Your task to perform on an android device: open the mobile data screen to see how much data has been used Image 0: 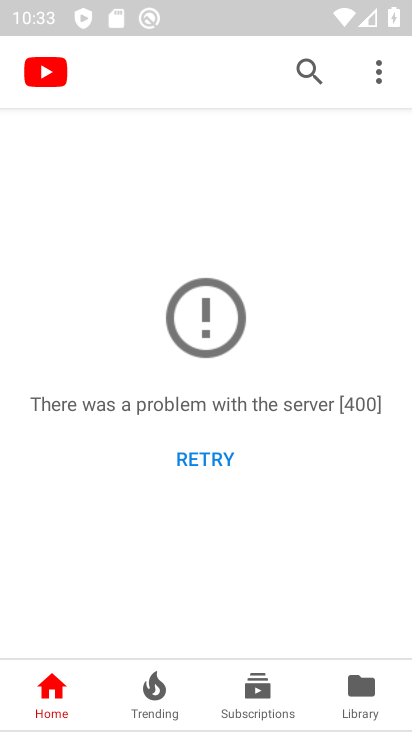
Step 0: press home button
Your task to perform on an android device: open the mobile data screen to see how much data has been used Image 1: 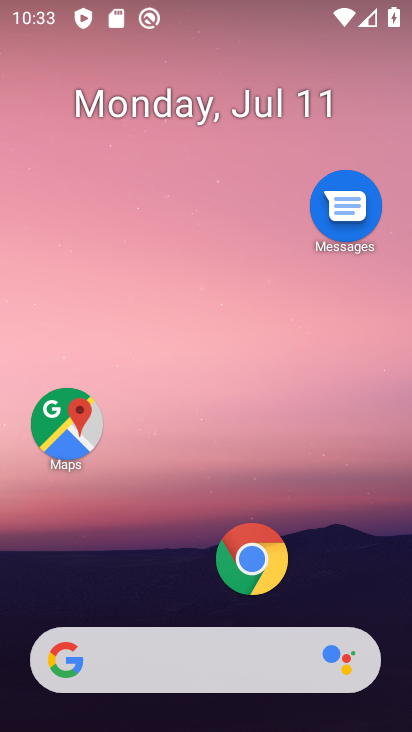
Step 1: drag from (325, 585) to (322, 101)
Your task to perform on an android device: open the mobile data screen to see how much data has been used Image 2: 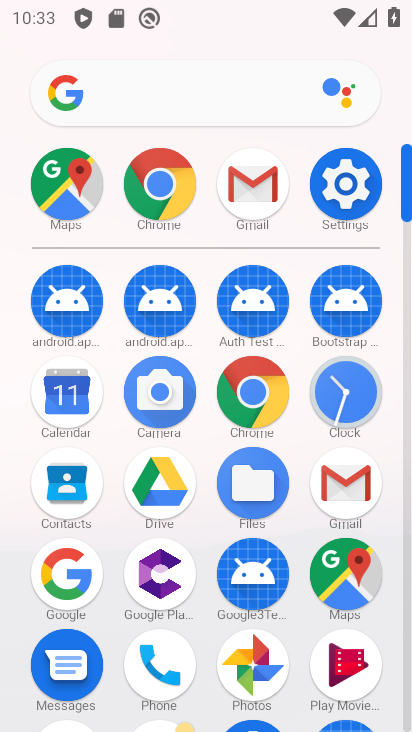
Step 2: click (344, 191)
Your task to perform on an android device: open the mobile data screen to see how much data has been used Image 3: 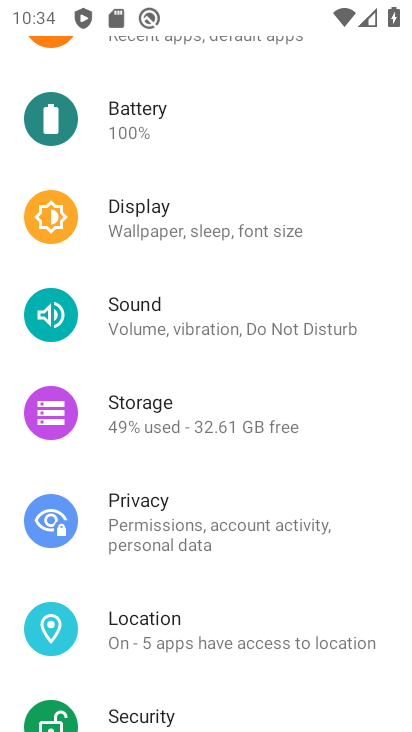
Step 3: drag from (340, 206) to (359, 315)
Your task to perform on an android device: open the mobile data screen to see how much data has been used Image 4: 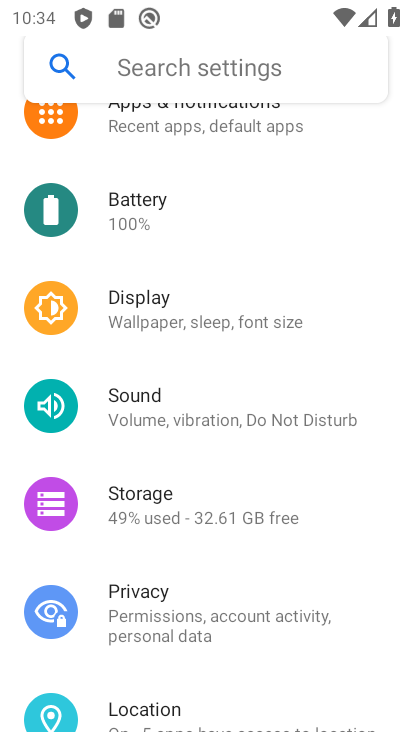
Step 4: drag from (345, 234) to (349, 349)
Your task to perform on an android device: open the mobile data screen to see how much data has been used Image 5: 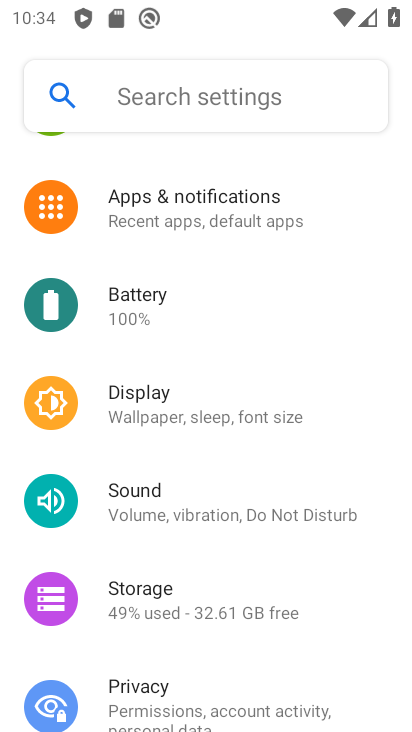
Step 5: drag from (347, 220) to (353, 289)
Your task to perform on an android device: open the mobile data screen to see how much data has been used Image 6: 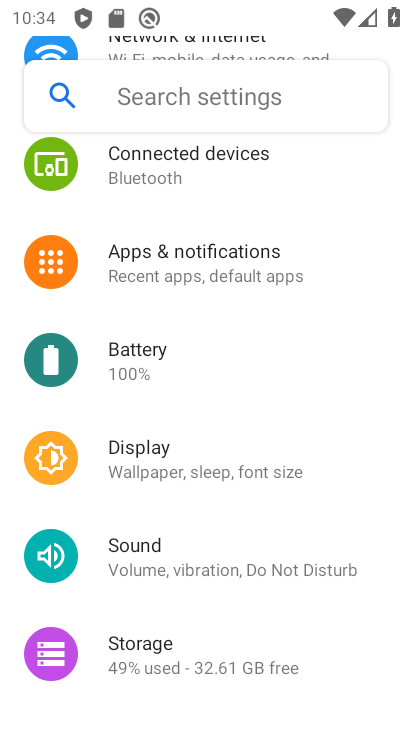
Step 6: drag from (362, 211) to (363, 363)
Your task to perform on an android device: open the mobile data screen to see how much data has been used Image 7: 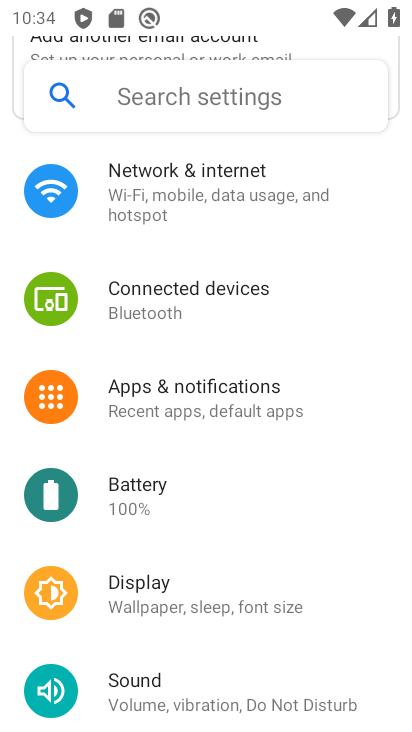
Step 7: click (314, 198)
Your task to perform on an android device: open the mobile data screen to see how much data has been used Image 8: 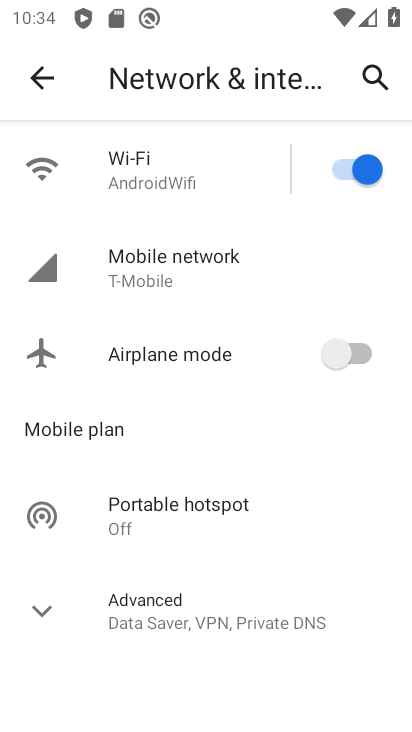
Step 8: click (205, 268)
Your task to perform on an android device: open the mobile data screen to see how much data has been used Image 9: 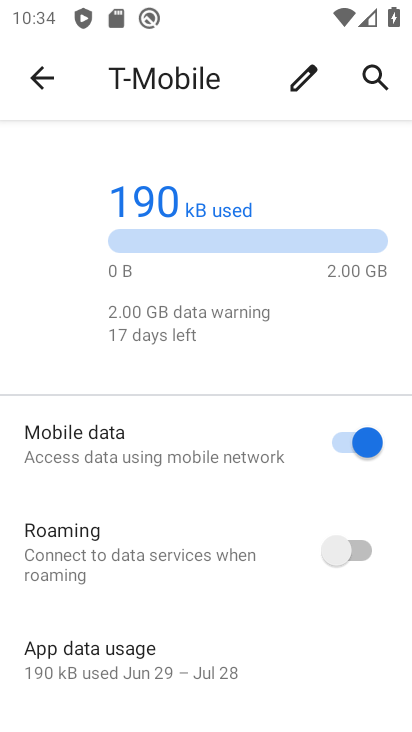
Step 9: drag from (207, 585) to (207, 443)
Your task to perform on an android device: open the mobile data screen to see how much data has been used Image 10: 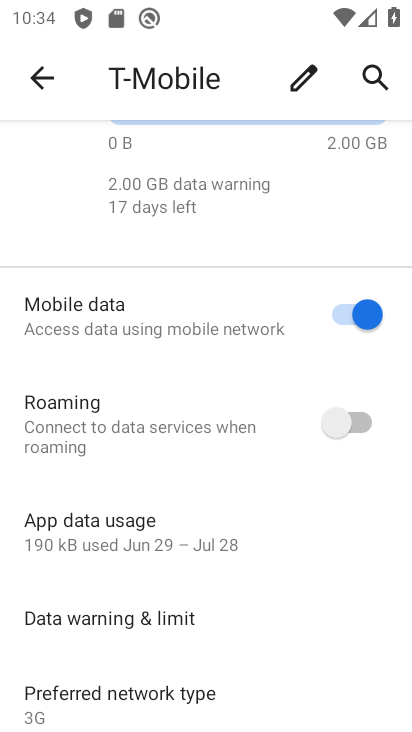
Step 10: click (205, 536)
Your task to perform on an android device: open the mobile data screen to see how much data has been used Image 11: 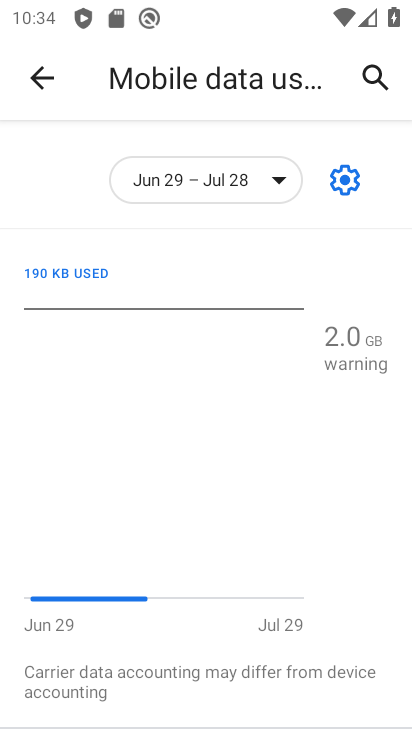
Step 11: task complete